Your task to perform on an android device: Go to settings Image 0: 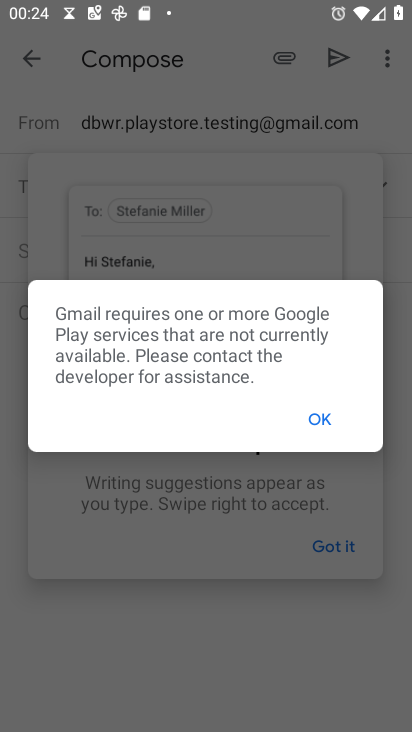
Step 0: press home button
Your task to perform on an android device: Go to settings Image 1: 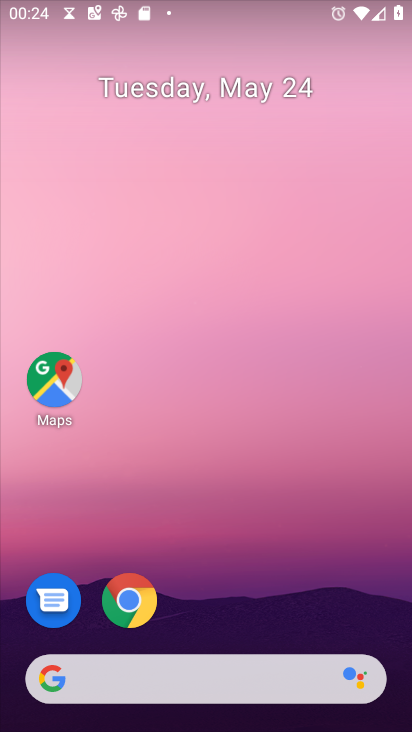
Step 1: drag from (211, 728) to (210, 49)
Your task to perform on an android device: Go to settings Image 2: 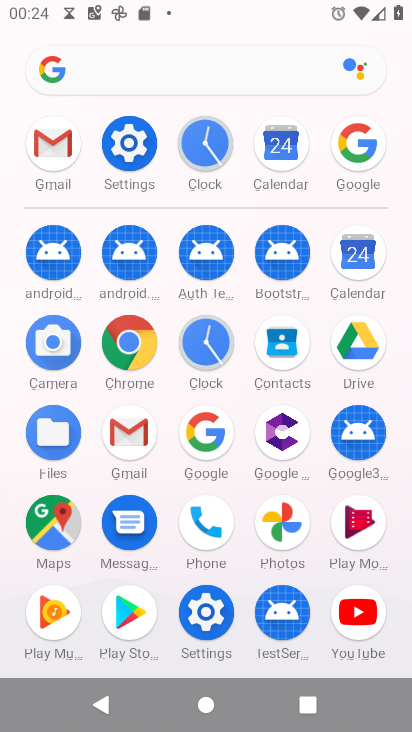
Step 2: click (128, 141)
Your task to perform on an android device: Go to settings Image 3: 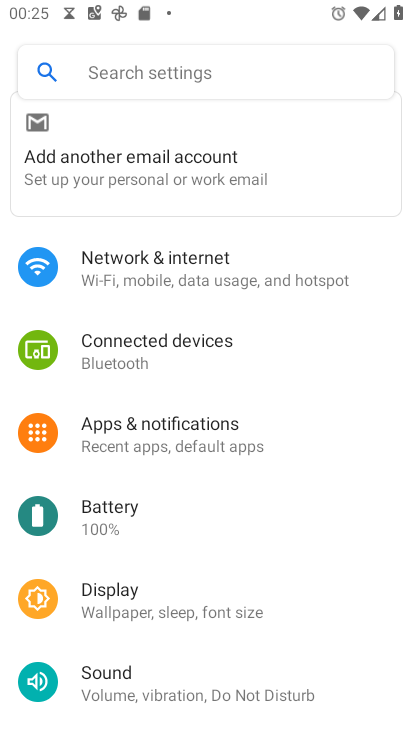
Step 3: task complete